Your task to perform on an android device: What's the weather? Image 0: 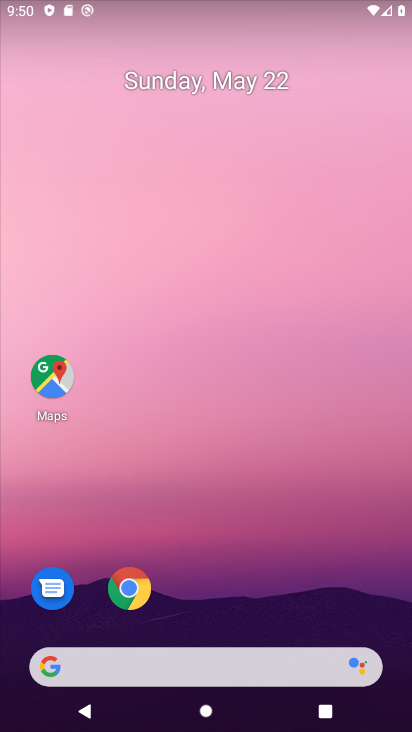
Step 0: click (242, 680)
Your task to perform on an android device: What's the weather? Image 1: 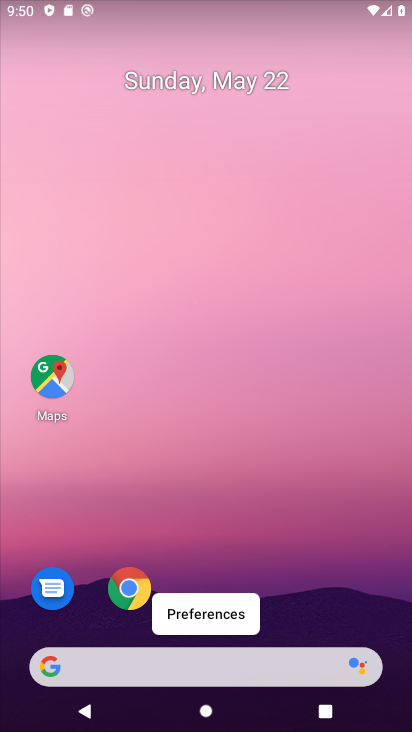
Step 1: click (224, 667)
Your task to perform on an android device: What's the weather? Image 2: 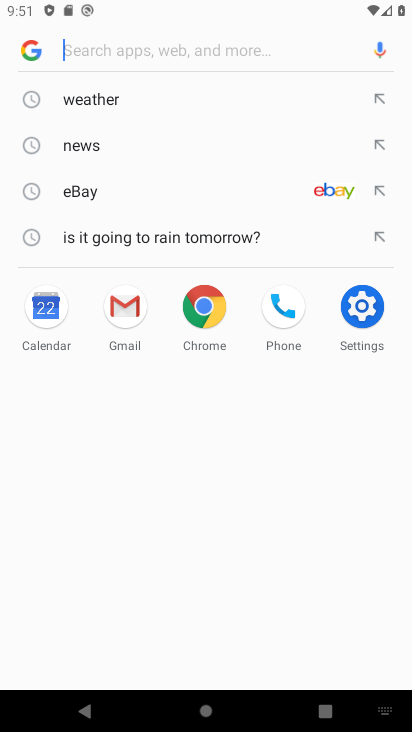
Step 2: click (176, 50)
Your task to perform on an android device: What's the weather? Image 3: 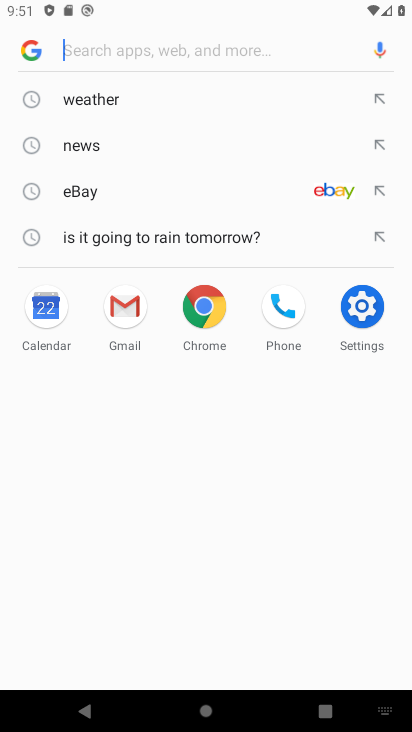
Step 3: type "What's the weather?"
Your task to perform on an android device: What's the weather? Image 4: 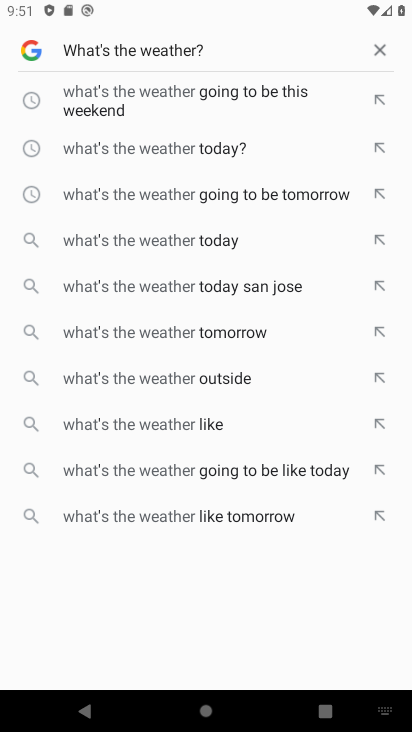
Step 4: click (189, 147)
Your task to perform on an android device: What's the weather? Image 5: 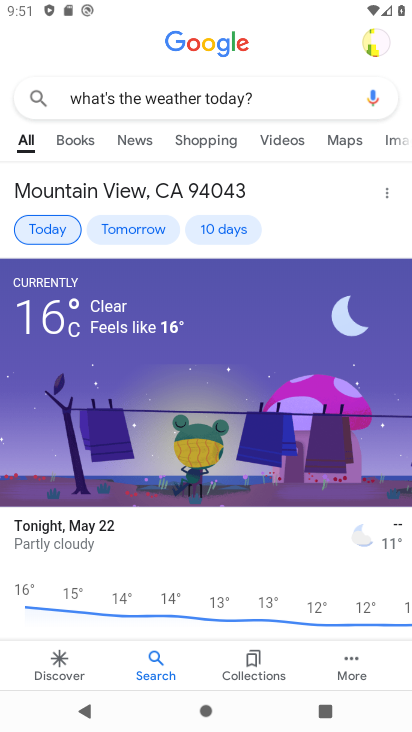
Step 5: task complete